Your task to perform on an android device: toggle javascript in the chrome app Image 0: 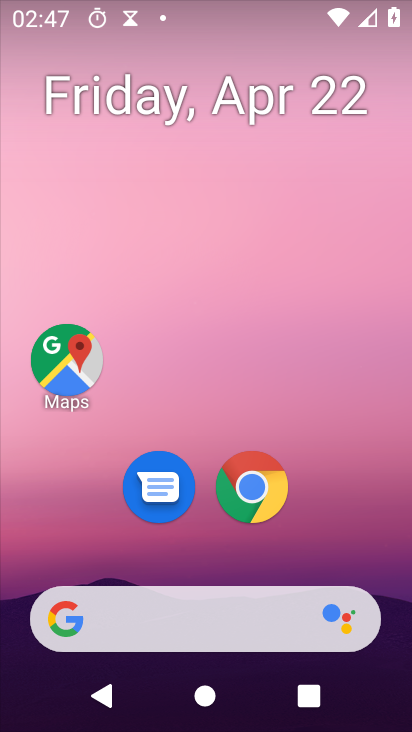
Step 0: drag from (163, 631) to (333, 75)
Your task to perform on an android device: toggle javascript in the chrome app Image 1: 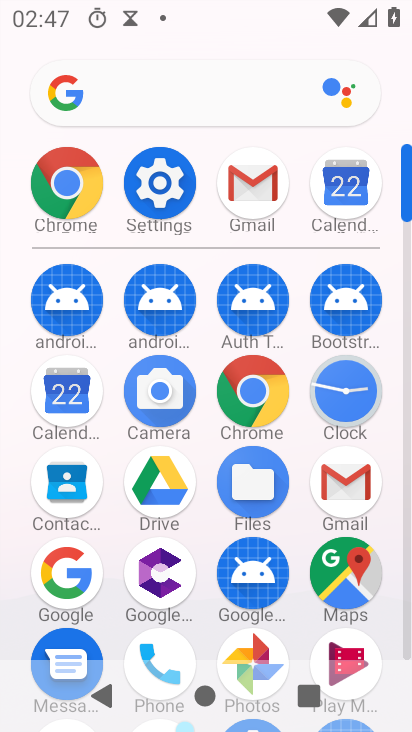
Step 1: click (85, 179)
Your task to perform on an android device: toggle javascript in the chrome app Image 2: 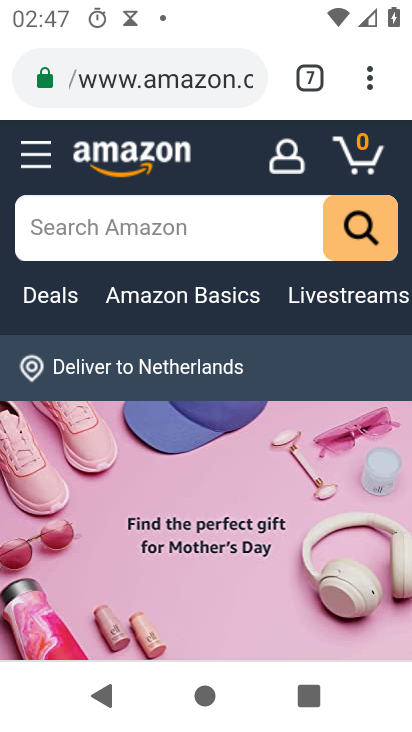
Step 2: drag from (367, 82) to (126, 545)
Your task to perform on an android device: toggle javascript in the chrome app Image 3: 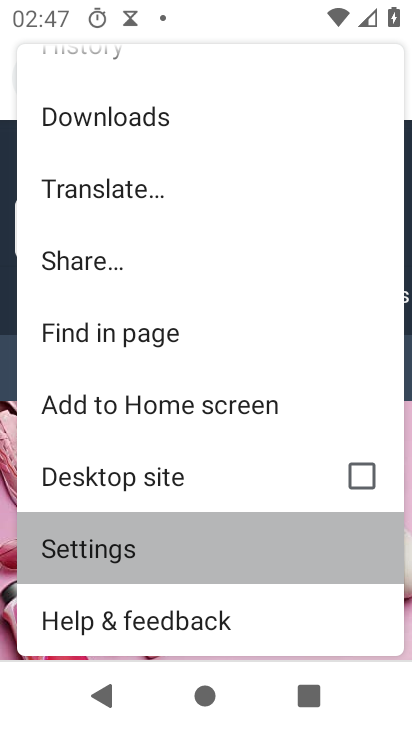
Step 3: click (127, 545)
Your task to perform on an android device: toggle javascript in the chrome app Image 4: 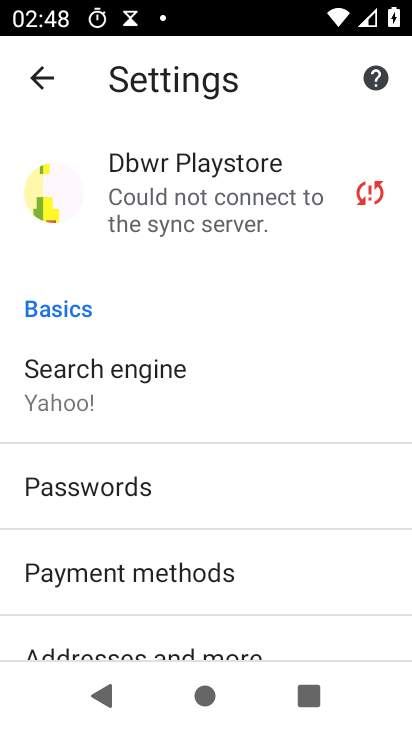
Step 4: drag from (120, 566) to (318, 144)
Your task to perform on an android device: toggle javascript in the chrome app Image 5: 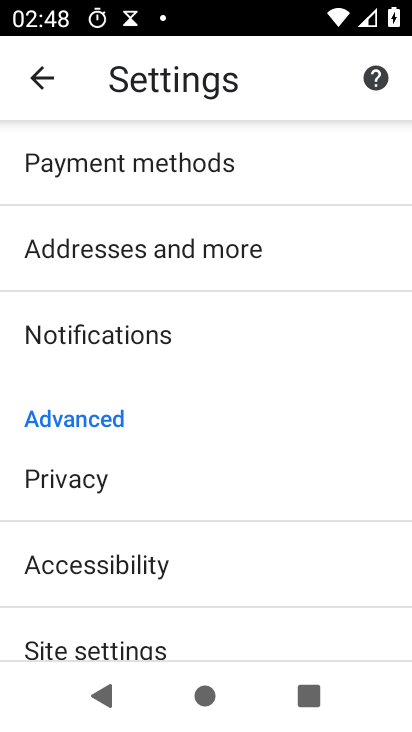
Step 5: drag from (150, 605) to (277, 302)
Your task to perform on an android device: toggle javascript in the chrome app Image 6: 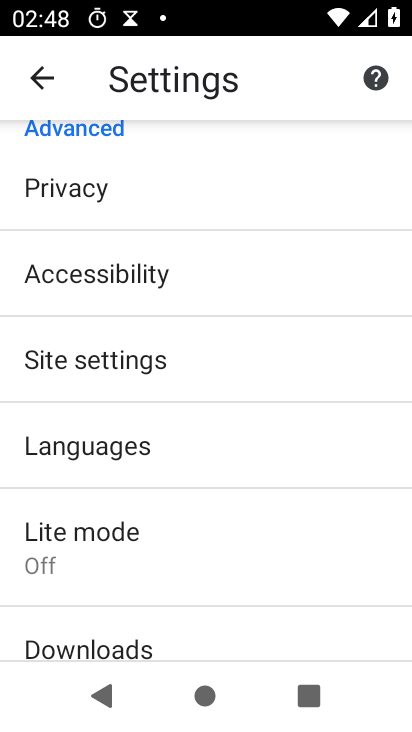
Step 6: click (118, 371)
Your task to perform on an android device: toggle javascript in the chrome app Image 7: 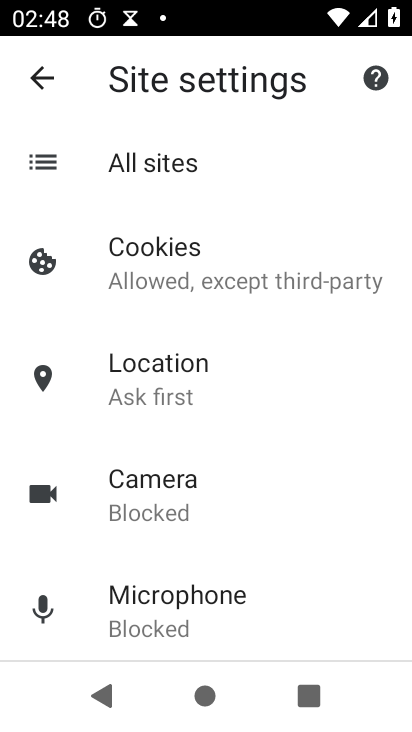
Step 7: drag from (165, 585) to (300, 197)
Your task to perform on an android device: toggle javascript in the chrome app Image 8: 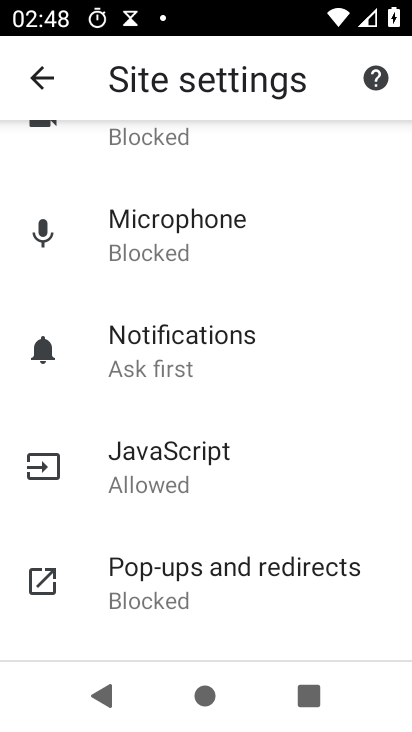
Step 8: click (167, 454)
Your task to perform on an android device: toggle javascript in the chrome app Image 9: 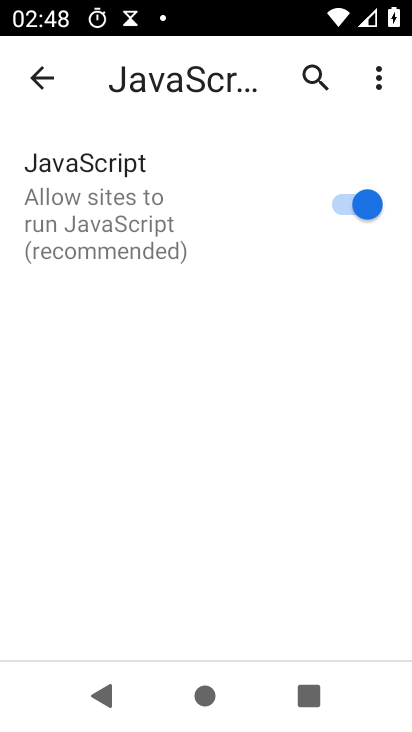
Step 9: click (339, 203)
Your task to perform on an android device: toggle javascript in the chrome app Image 10: 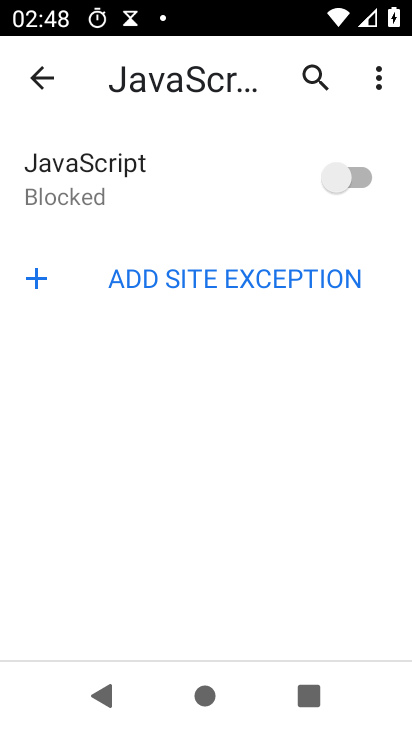
Step 10: task complete